Your task to perform on an android device: change alarm snooze length Image 0: 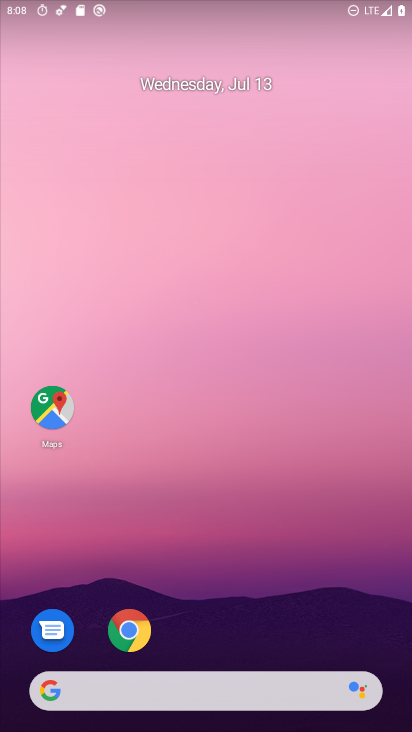
Step 0: drag from (388, 670) to (210, 31)
Your task to perform on an android device: change alarm snooze length Image 1: 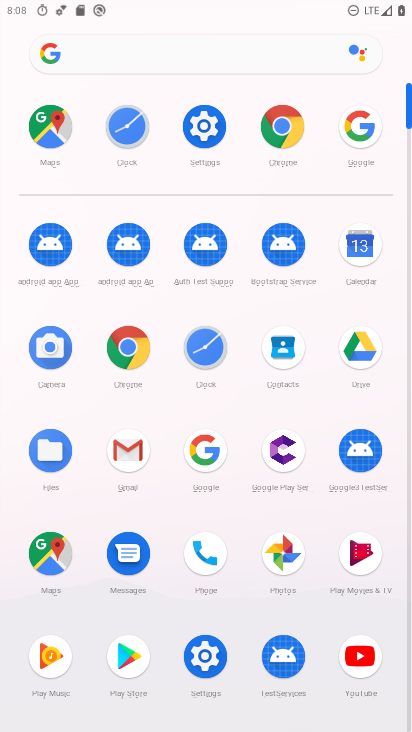
Step 1: click (214, 352)
Your task to perform on an android device: change alarm snooze length Image 2: 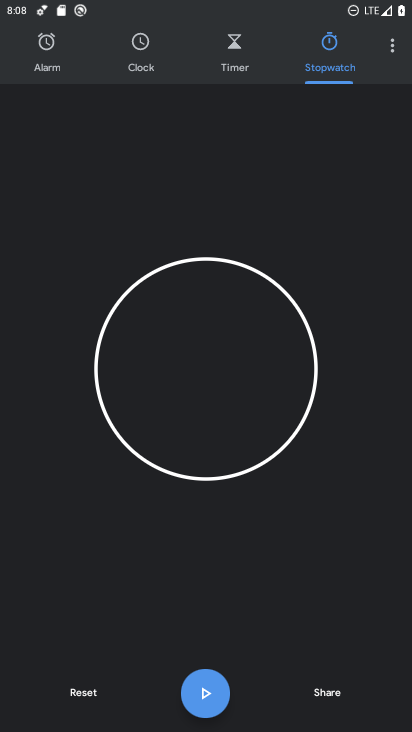
Step 2: click (390, 56)
Your task to perform on an android device: change alarm snooze length Image 3: 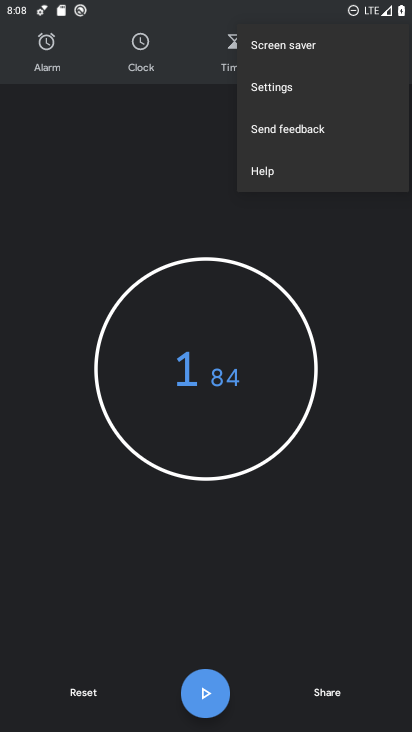
Step 3: click (321, 87)
Your task to perform on an android device: change alarm snooze length Image 4: 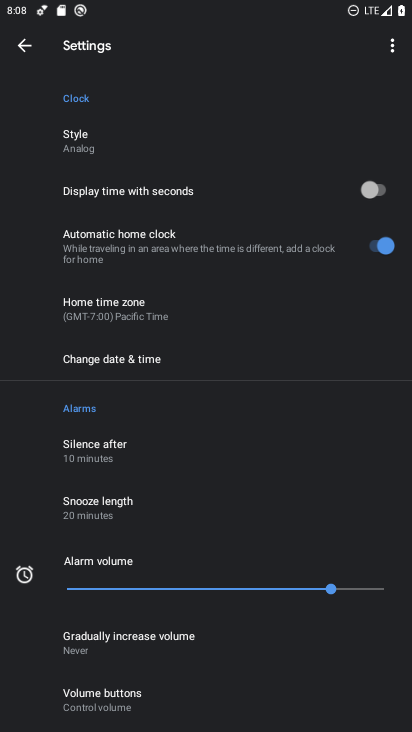
Step 4: drag from (149, 692) to (184, 268)
Your task to perform on an android device: change alarm snooze length Image 5: 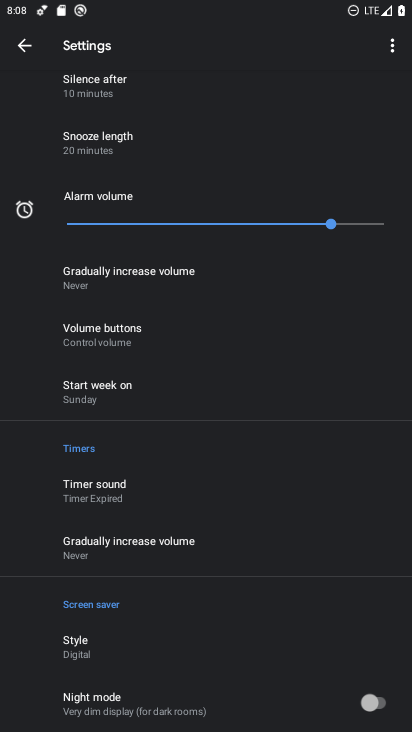
Step 5: click (77, 139)
Your task to perform on an android device: change alarm snooze length Image 6: 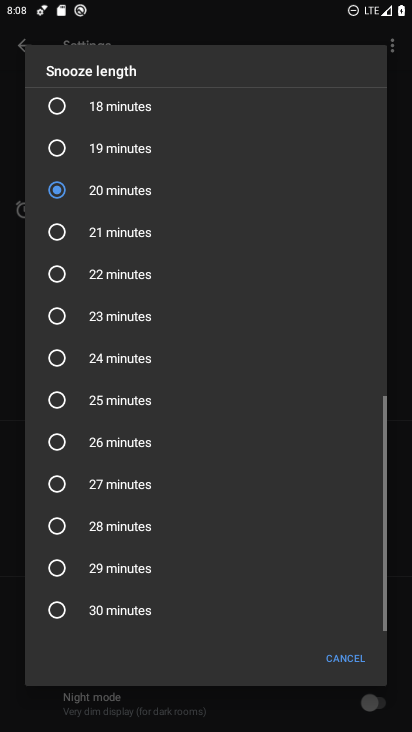
Step 6: click (117, 353)
Your task to perform on an android device: change alarm snooze length Image 7: 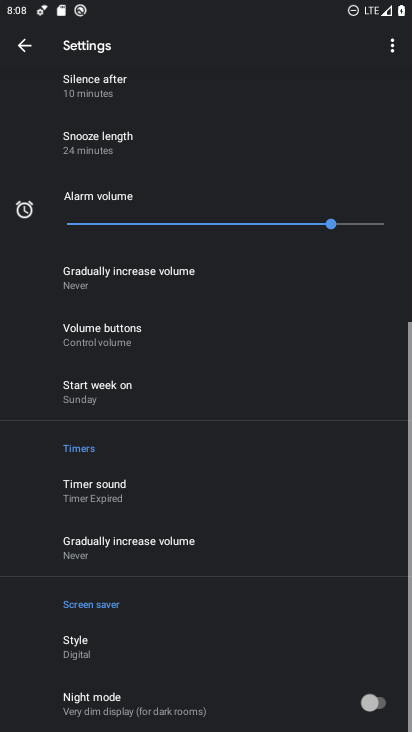
Step 7: task complete